Your task to perform on an android device: check google app version Image 0: 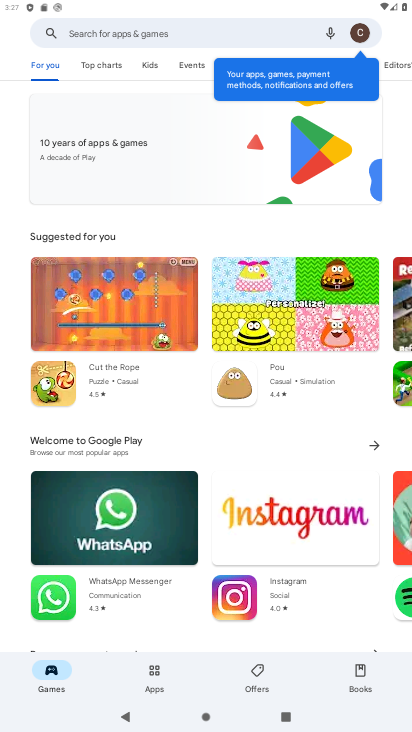
Step 0: press home button
Your task to perform on an android device: check google app version Image 1: 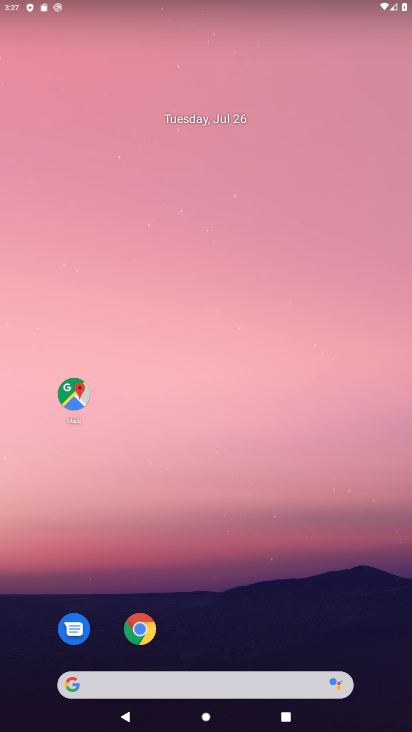
Step 1: drag from (317, 603) to (257, 196)
Your task to perform on an android device: check google app version Image 2: 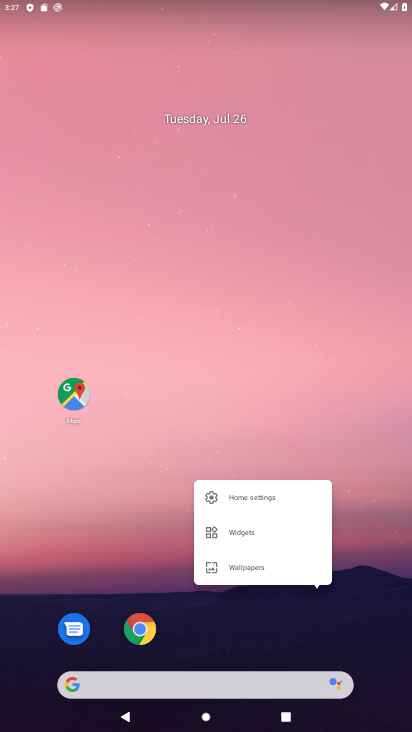
Step 2: click (356, 558)
Your task to perform on an android device: check google app version Image 3: 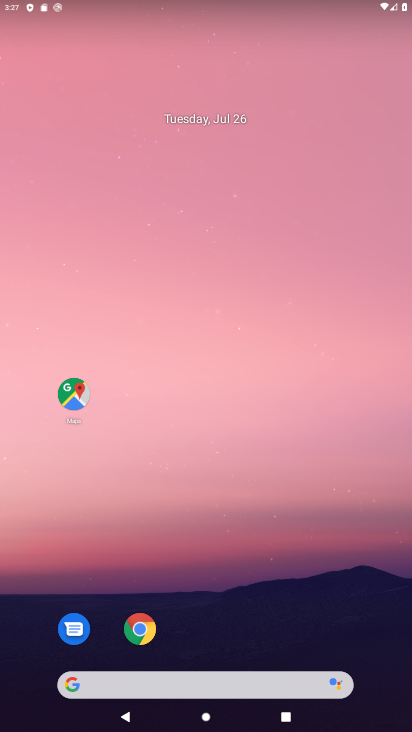
Step 3: drag from (253, 609) to (219, 218)
Your task to perform on an android device: check google app version Image 4: 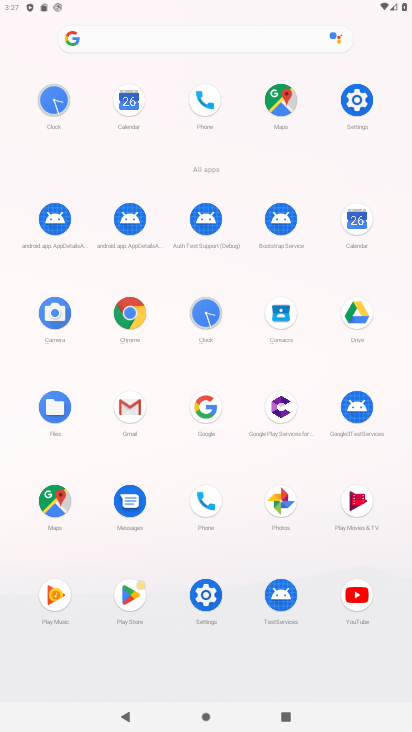
Step 4: click (207, 411)
Your task to perform on an android device: check google app version Image 5: 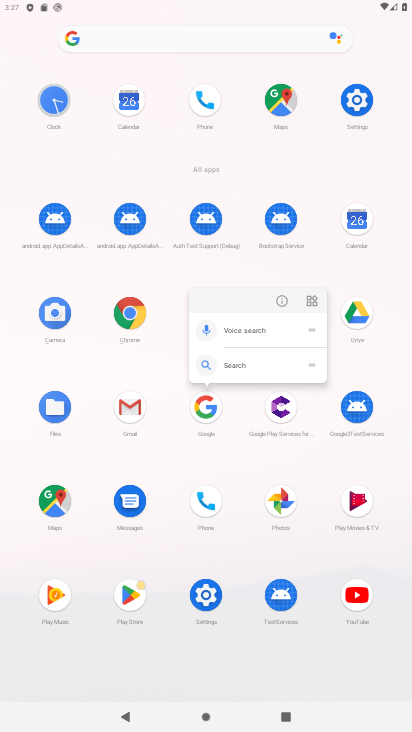
Step 5: click (279, 304)
Your task to perform on an android device: check google app version Image 6: 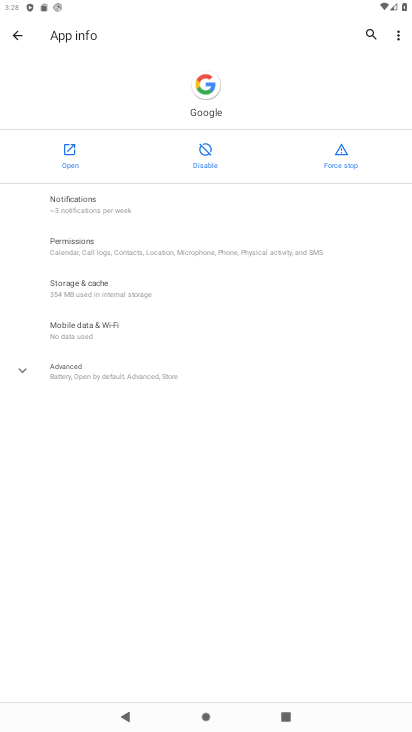
Step 6: click (88, 365)
Your task to perform on an android device: check google app version Image 7: 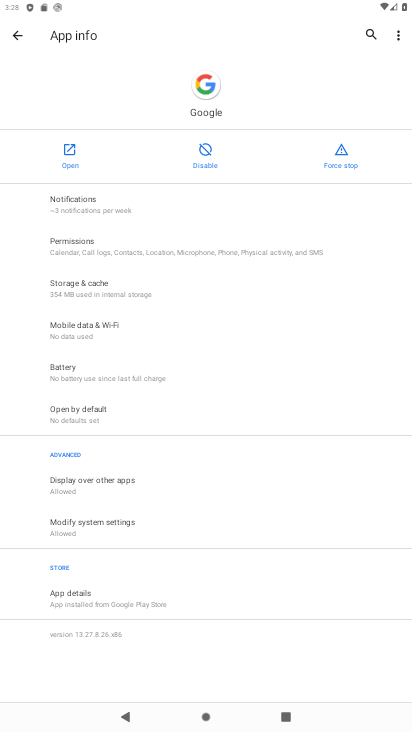
Step 7: task complete